Your task to perform on an android device: toggle improve location accuracy Image 0: 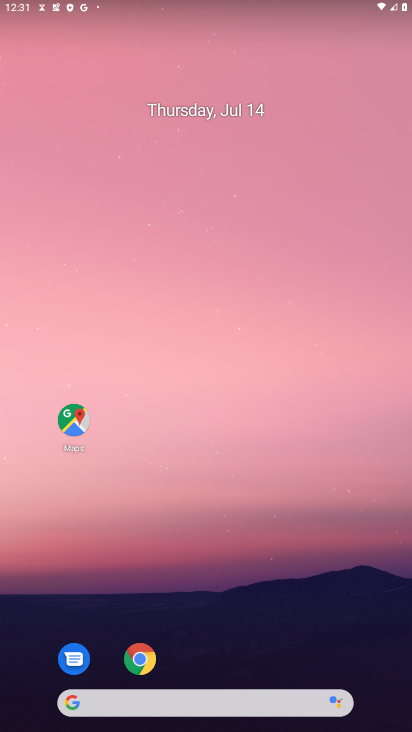
Step 0: drag from (30, 590) to (123, 175)
Your task to perform on an android device: toggle improve location accuracy Image 1: 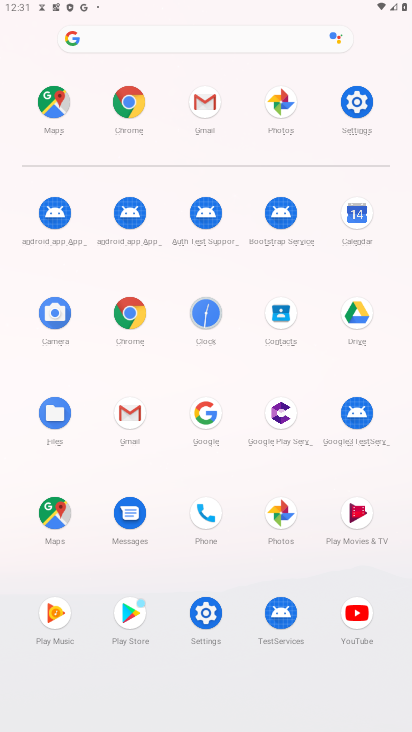
Step 1: click (196, 601)
Your task to perform on an android device: toggle improve location accuracy Image 2: 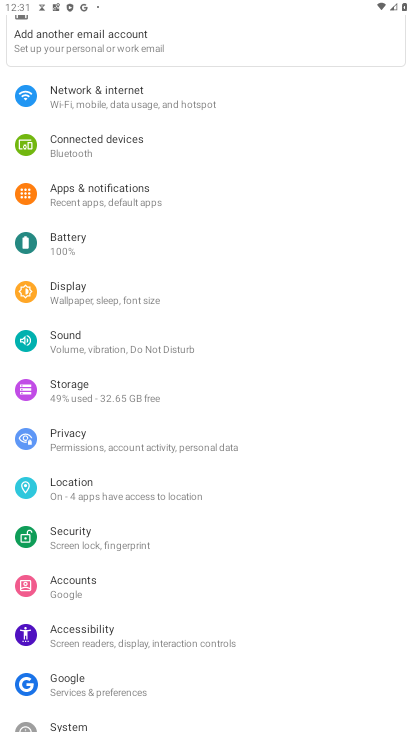
Step 2: click (101, 487)
Your task to perform on an android device: toggle improve location accuracy Image 3: 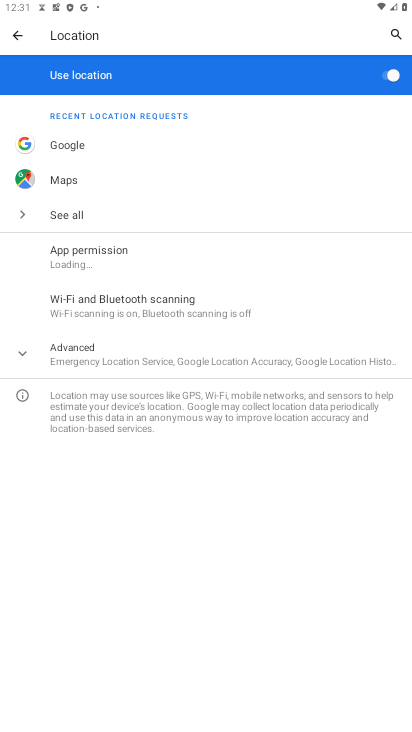
Step 3: click (137, 348)
Your task to perform on an android device: toggle improve location accuracy Image 4: 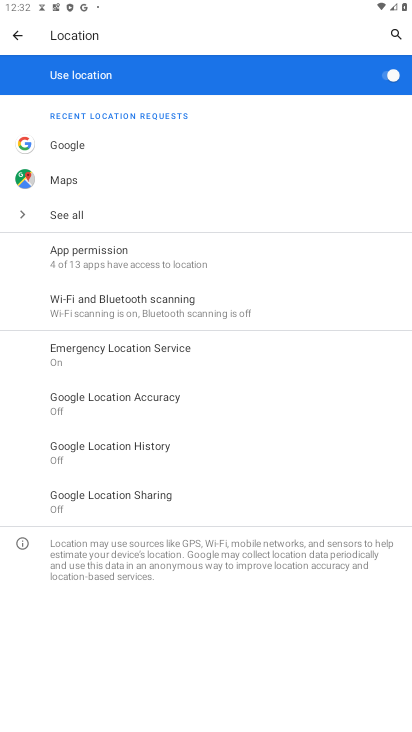
Step 4: click (146, 396)
Your task to perform on an android device: toggle improve location accuracy Image 5: 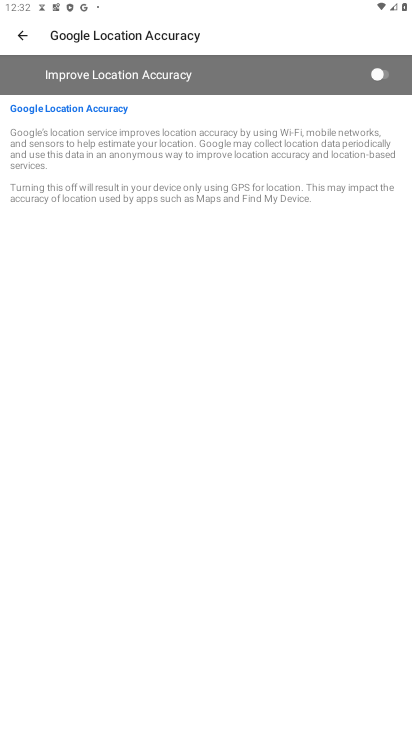
Step 5: click (379, 77)
Your task to perform on an android device: toggle improve location accuracy Image 6: 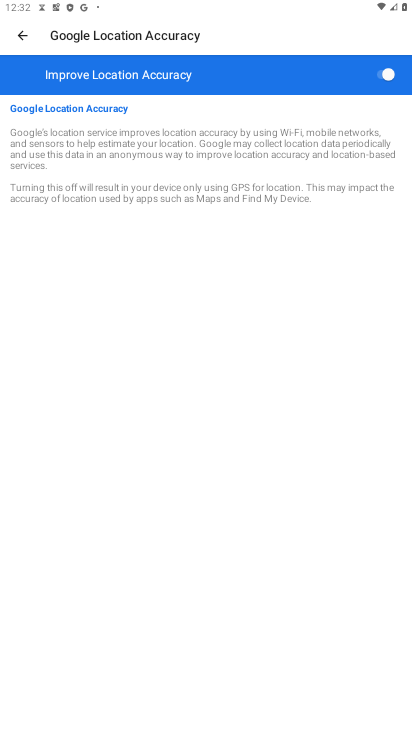
Step 6: task complete